Your task to perform on an android device: turn on the 12-hour format for clock Image 0: 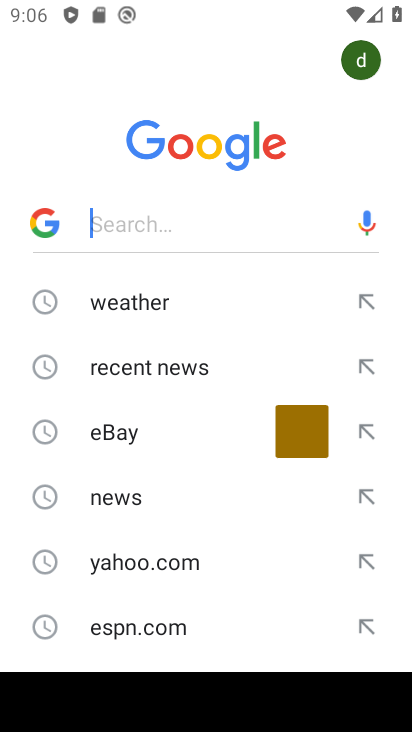
Step 0: press back button
Your task to perform on an android device: turn on the 12-hour format for clock Image 1: 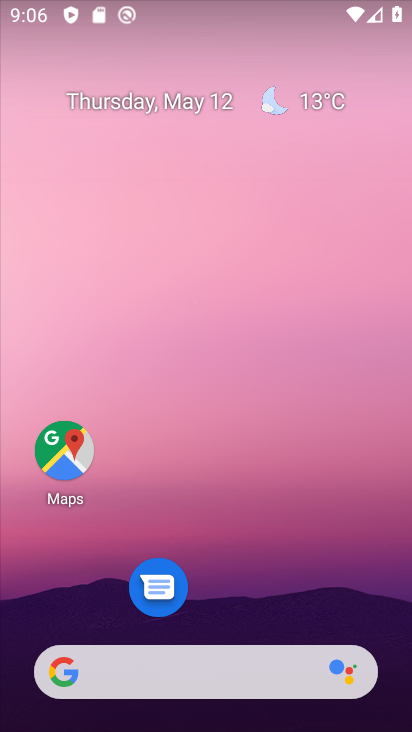
Step 1: drag from (225, 632) to (327, 15)
Your task to perform on an android device: turn on the 12-hour format for clock Image 2: 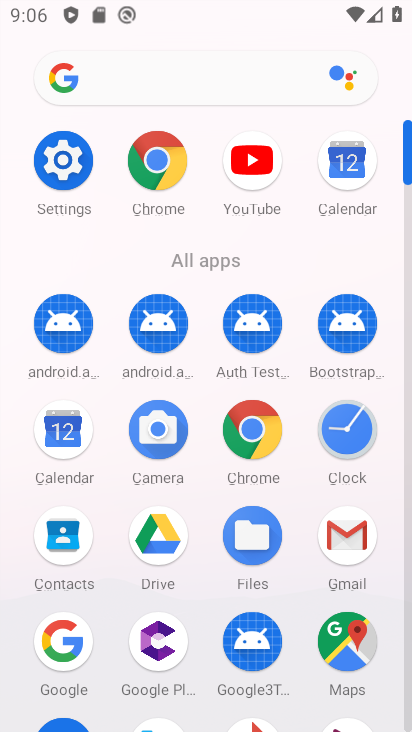
Step 2: click (351, 446)
Your task to perform on an android device: turn on the 12-hour format for clock Image 3: 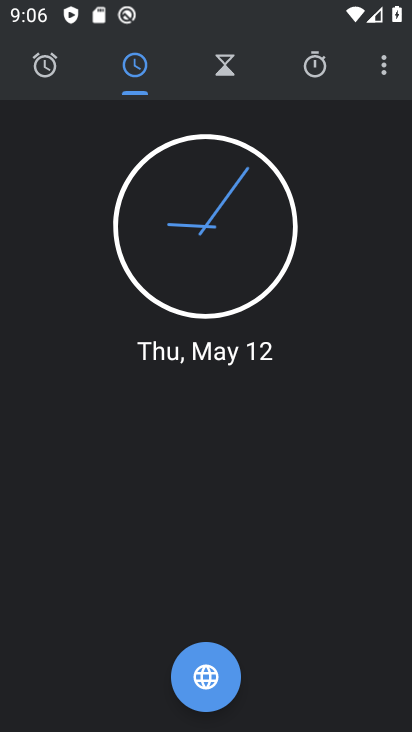
Step 3: click (377, 72)
Your task to perform on an android device: turn on the 12-hour format for clock Image 4: 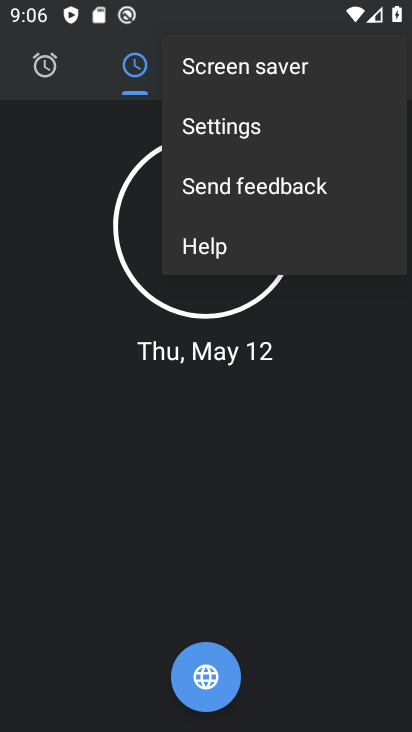
Step 4: click (218, 134)
Your task to perform on an android device: turn on the 12-hour format for clock Image 5: 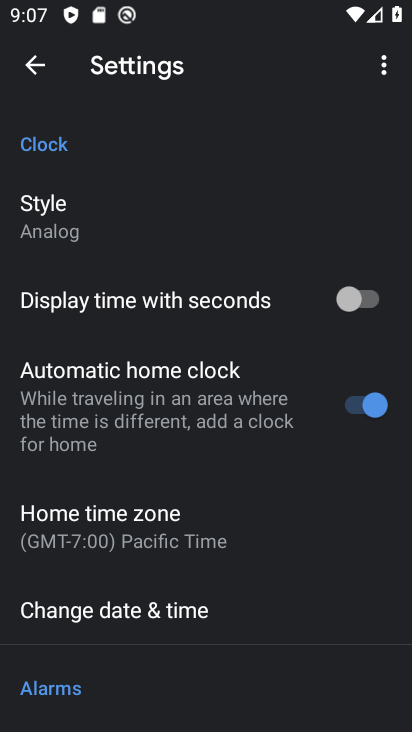
Step 5: click (142, 605)
Your task to perform on an android device: turn on the 12-hour format for clock Image 6: 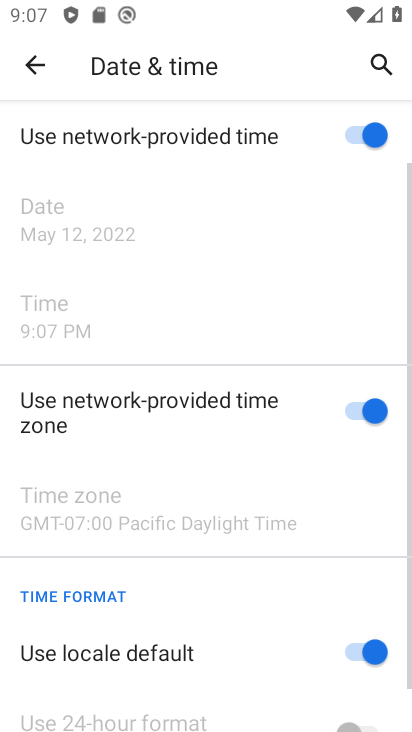
Step 6: task complete